Your task to perform on an android device: turn on data saver in the chrome app Image 0: 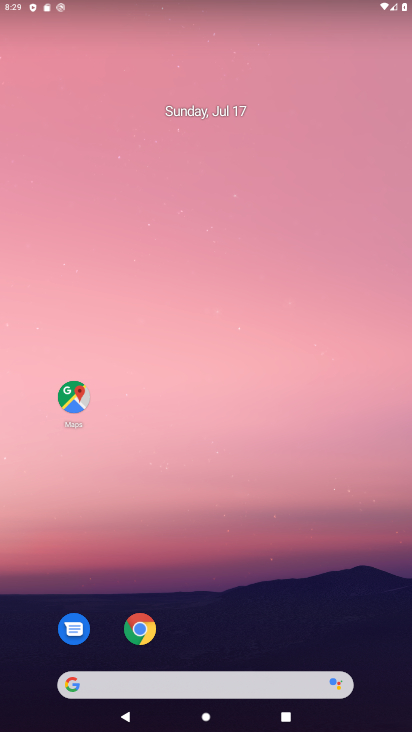
Step 0: click (135, 622)
Your task to perform on an android device: turn on data saver in the chrome app Image 1: 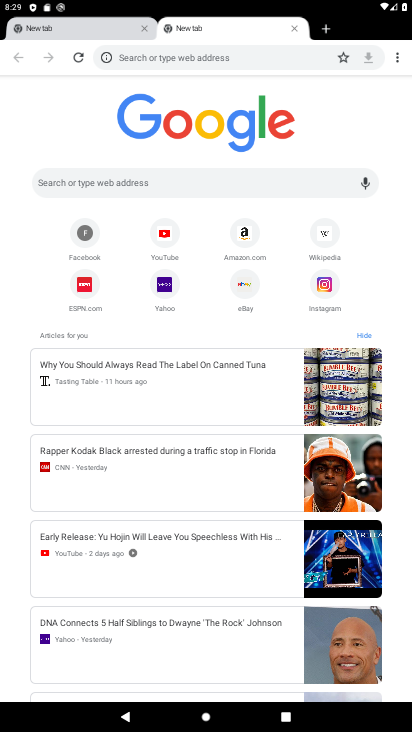
Step 1: click (407, 52)
Your task to perform on an android device: turn on data saver in the chrome app Image 2: 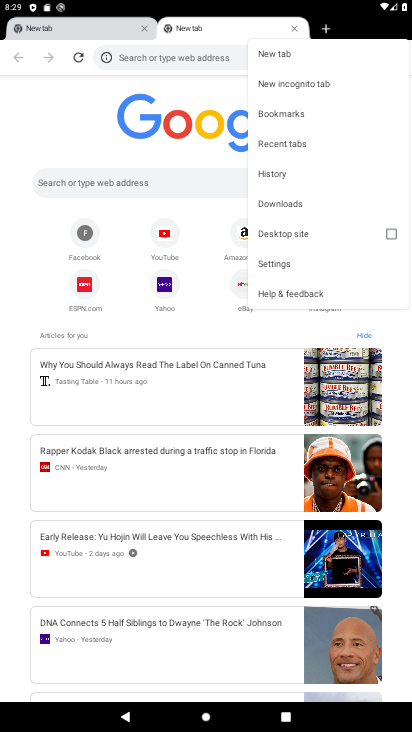
Step 2: click (292, 268)
Your task to perform on an android device: turn on data saver in the chrome app Image 3: 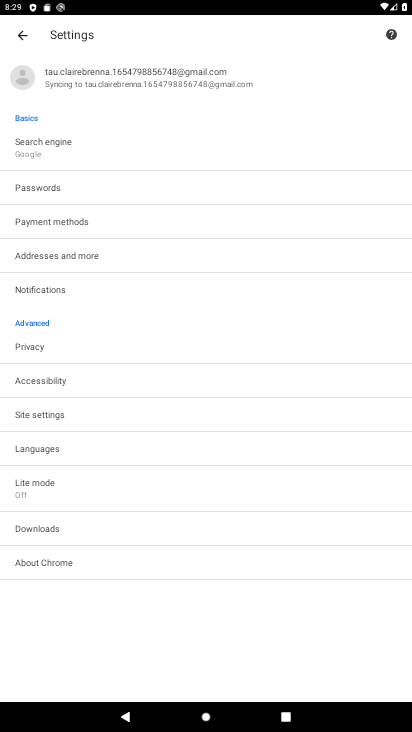
Step 3: click (51, 488)
Your task to perform on an android device: turn on data saver in the chrome app Image 4: 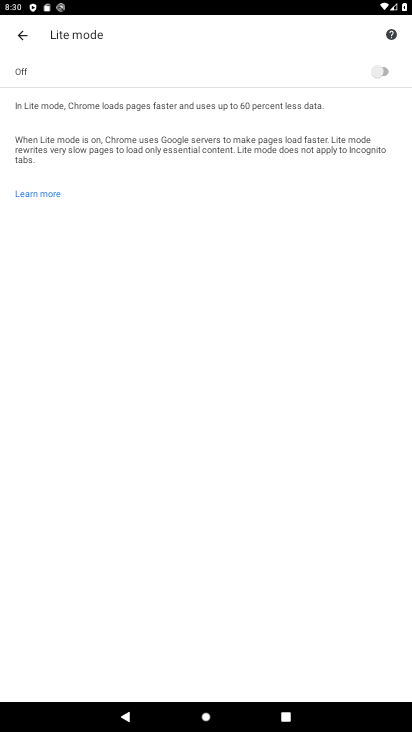
Step 4: click (377, 71)
Your task to perform on an android device: turn on data saver in the chrome app Image 5: 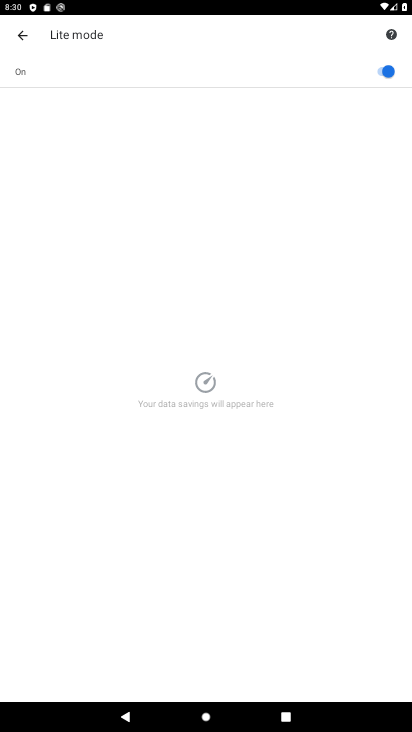
Step 5: task complete